Your task to perform on an android device: Toggle the flashlight Image 0: 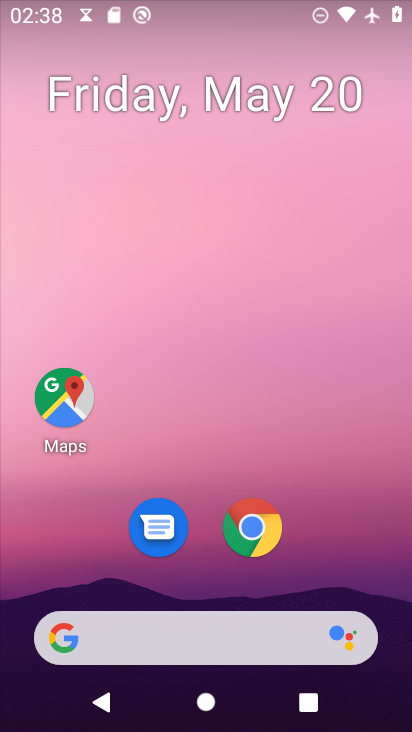
Step 0: press home button
Your task to perform on an android device: Toggle the flashlight Image 1: 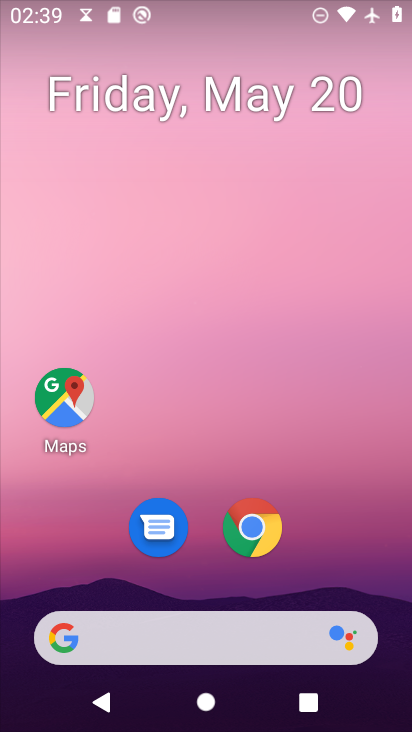
Step 1: task complete